Your task to perform on an android device: What's the weather today? Image 0: 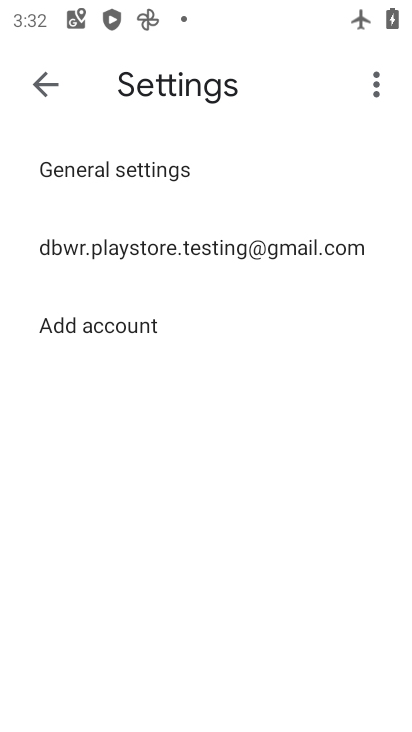
Step 0: press home button
Your task to perform on an android device: What's the weather today? Image 1: 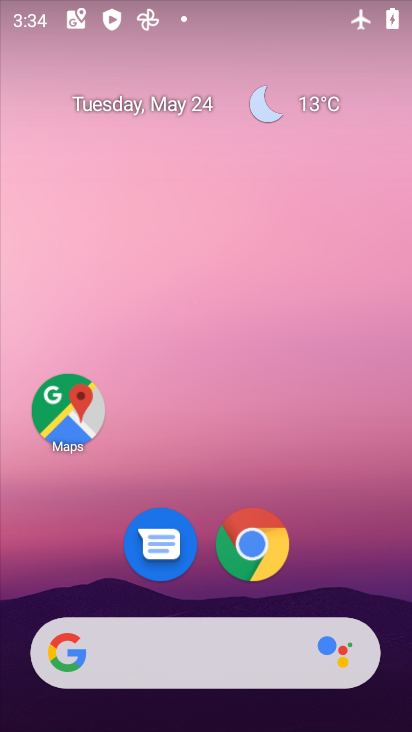
Step 1: click (348, 101)
Your task to perform on an android device: What's the weather today? Image 2: 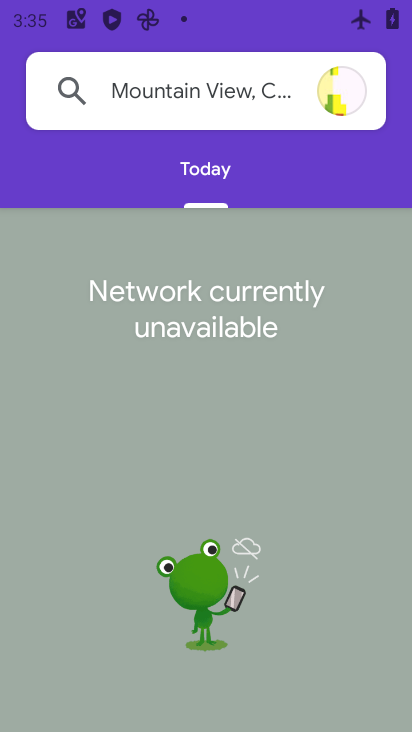
Step 2: task complete